Your task to perform on an android device: Clear the cart on newegg.com. Image 0: 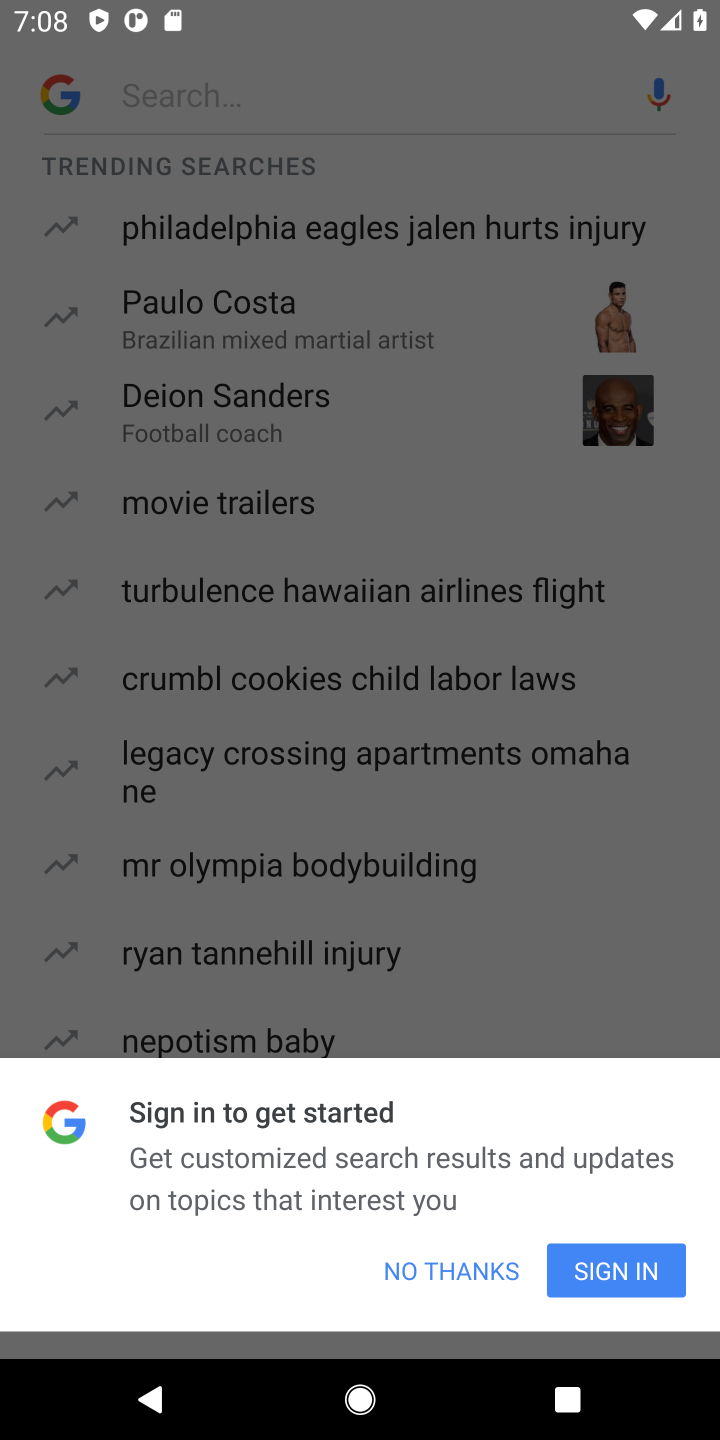
Step 0: press home button
Your task to perform on an android device: Clear the cart on newegg.com. Image 1: 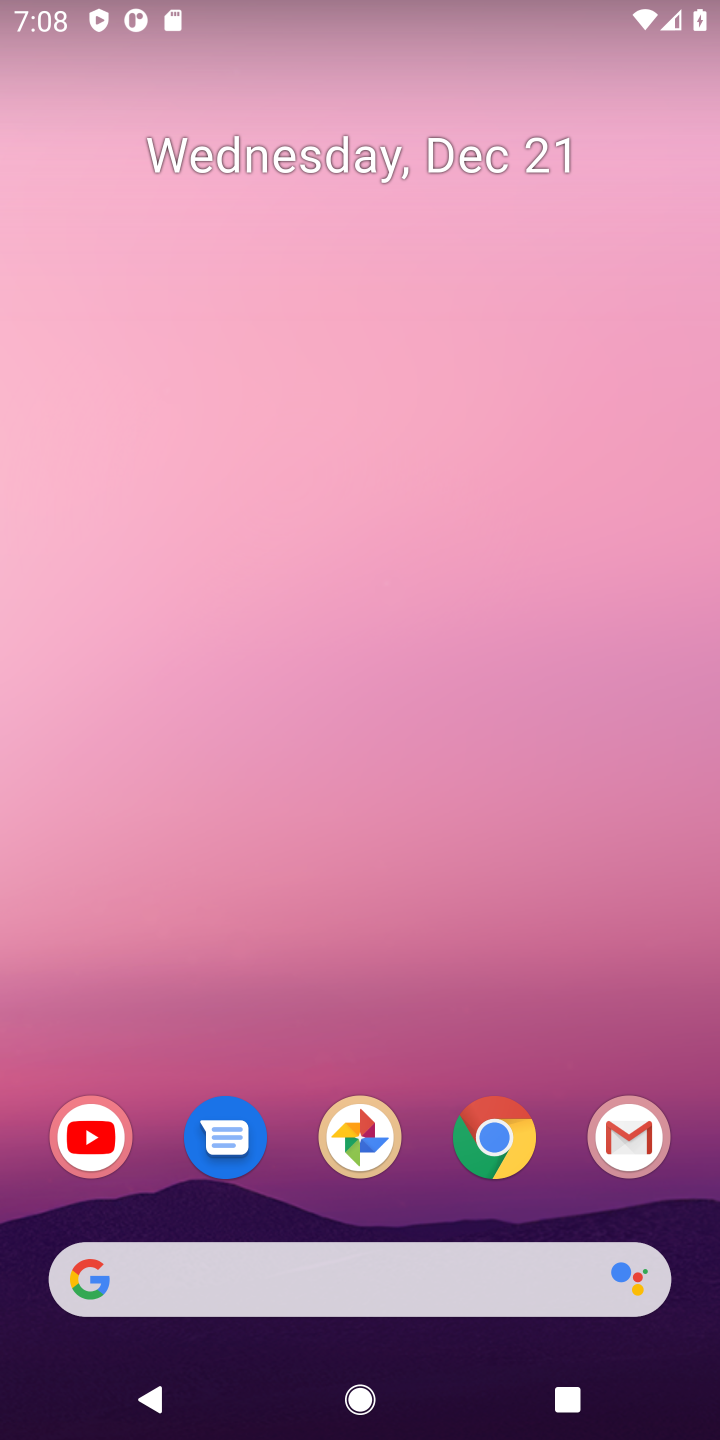
Step 1: click (498, 1151)
Your task to perform on an android device: Clear the cart on newegg.com. Image 2: 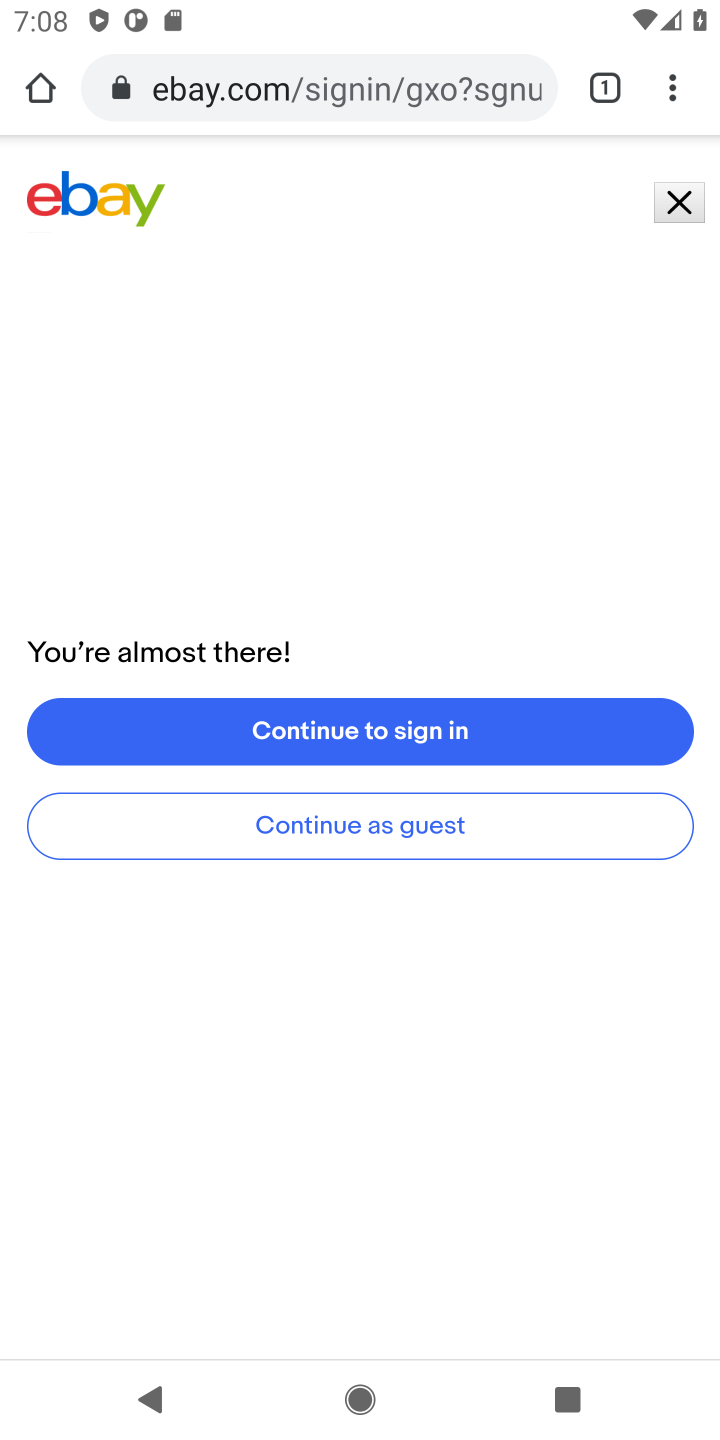
Step 2: click (272, 84)
Your task to perform on an android device: Clear the cart on newegg.com. Image 3: 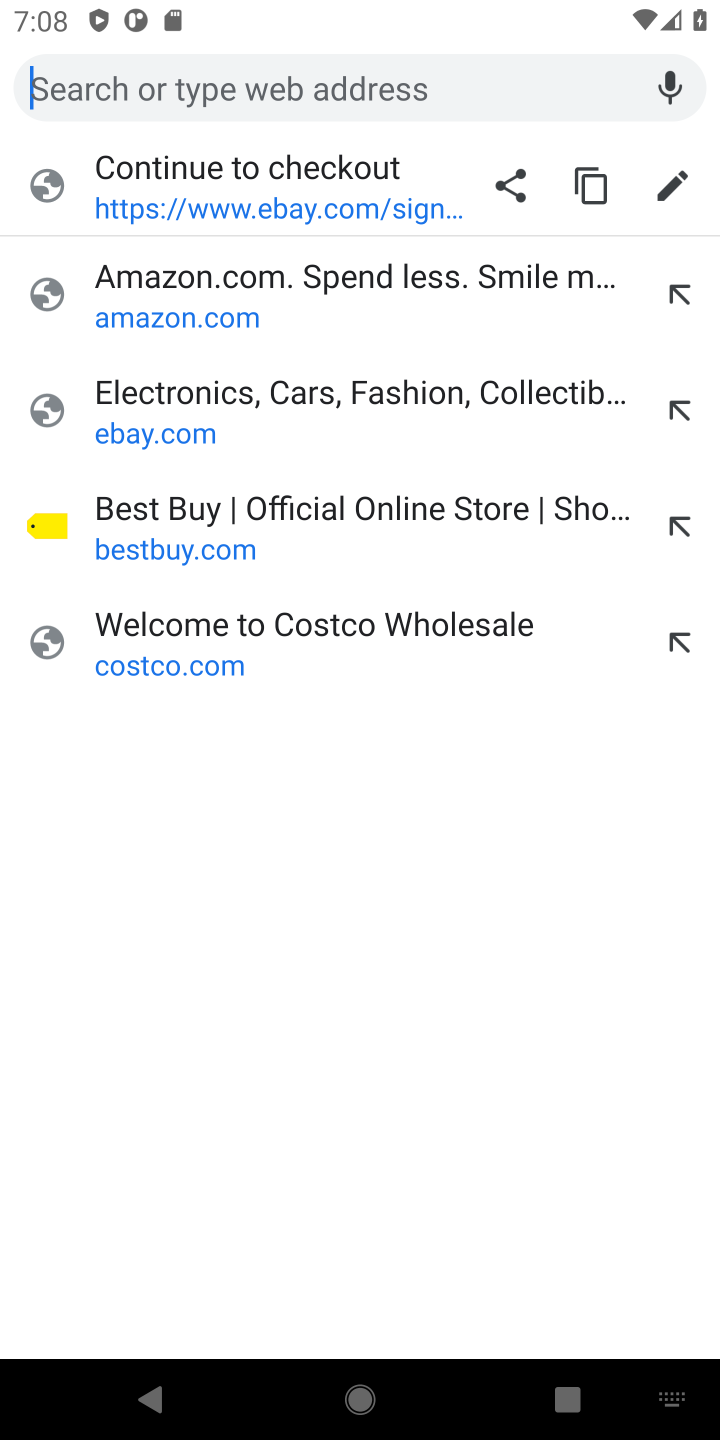
Step 3: type "newegg.com"
Your task to perform on an android device: Clear the cart on newegg.com. Image 4: 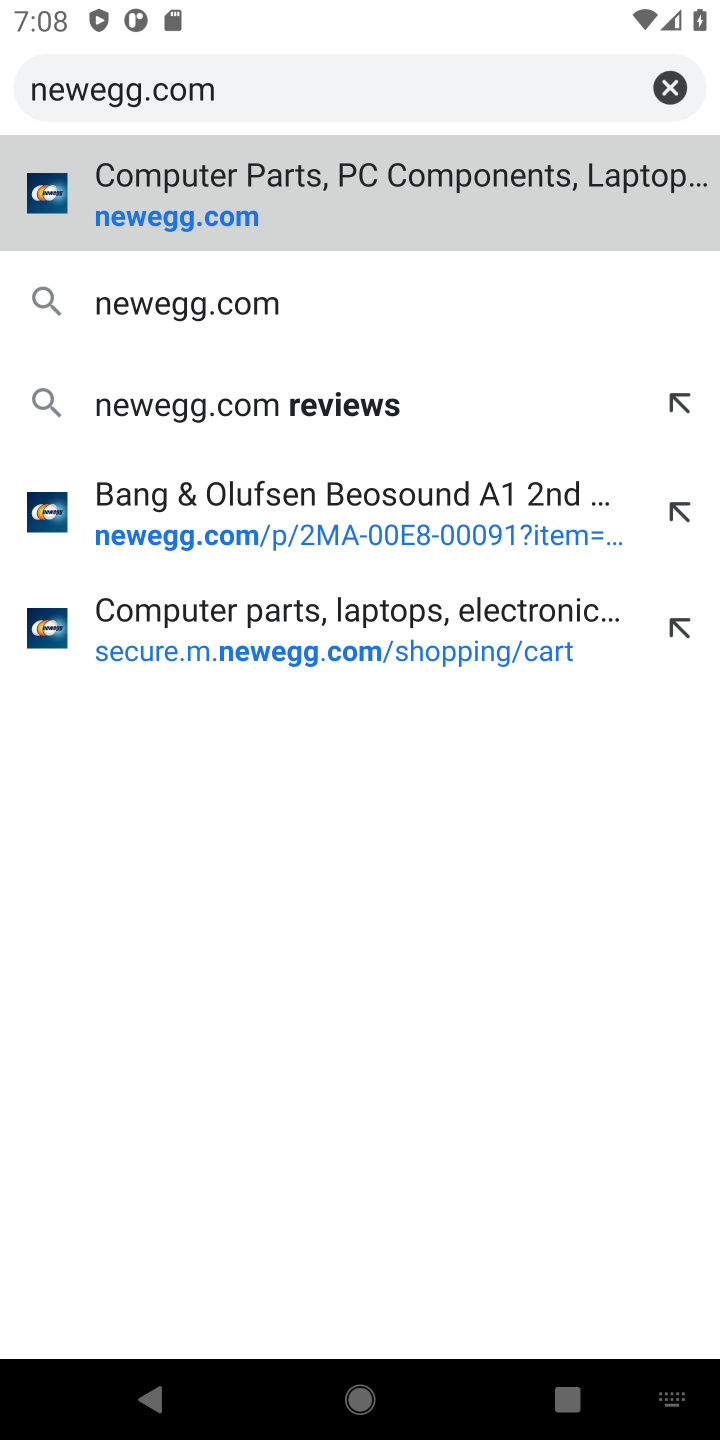
Step 4: click (189, 223)
Your task to perform on an android device: Clear the cart on newegg.com. Image 5: 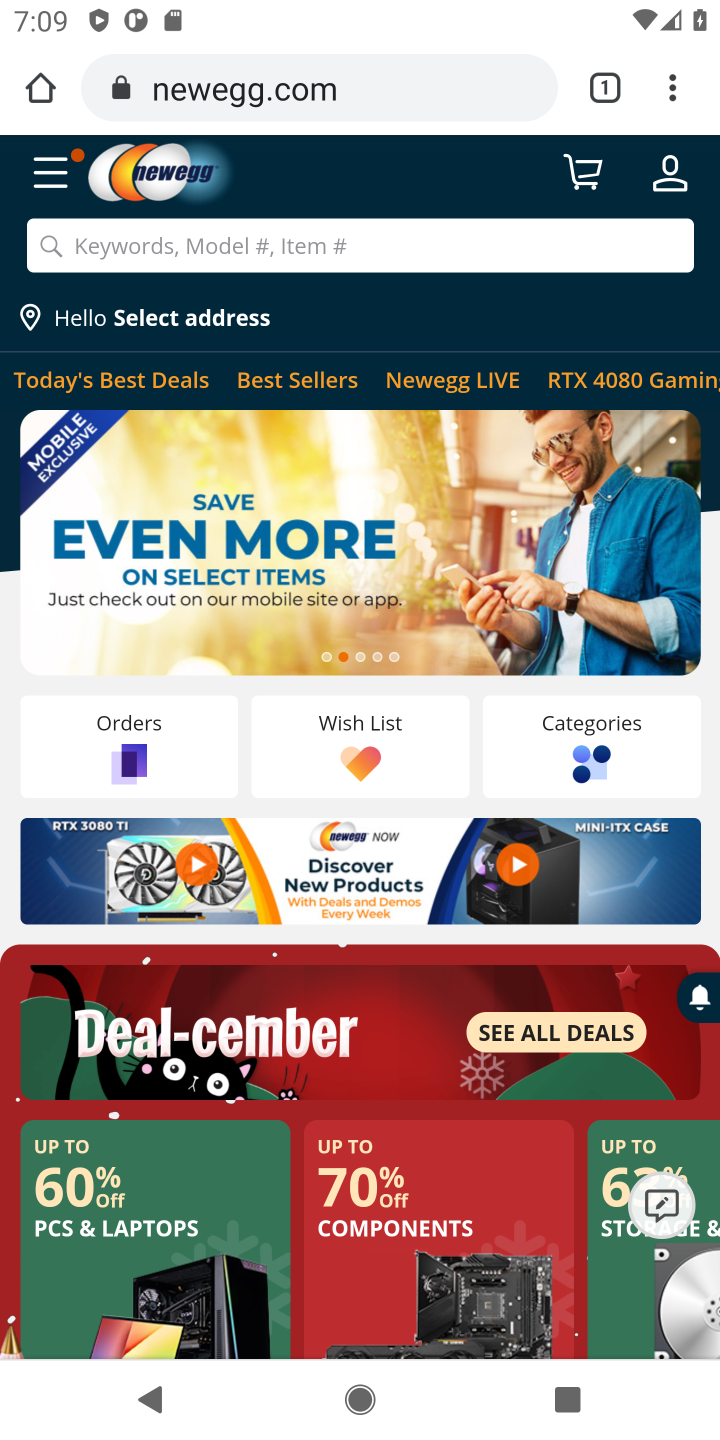
Step 5: click (572, 184)
Your task to perform on an android device: Clear the cart on newegg.com. Image 6: 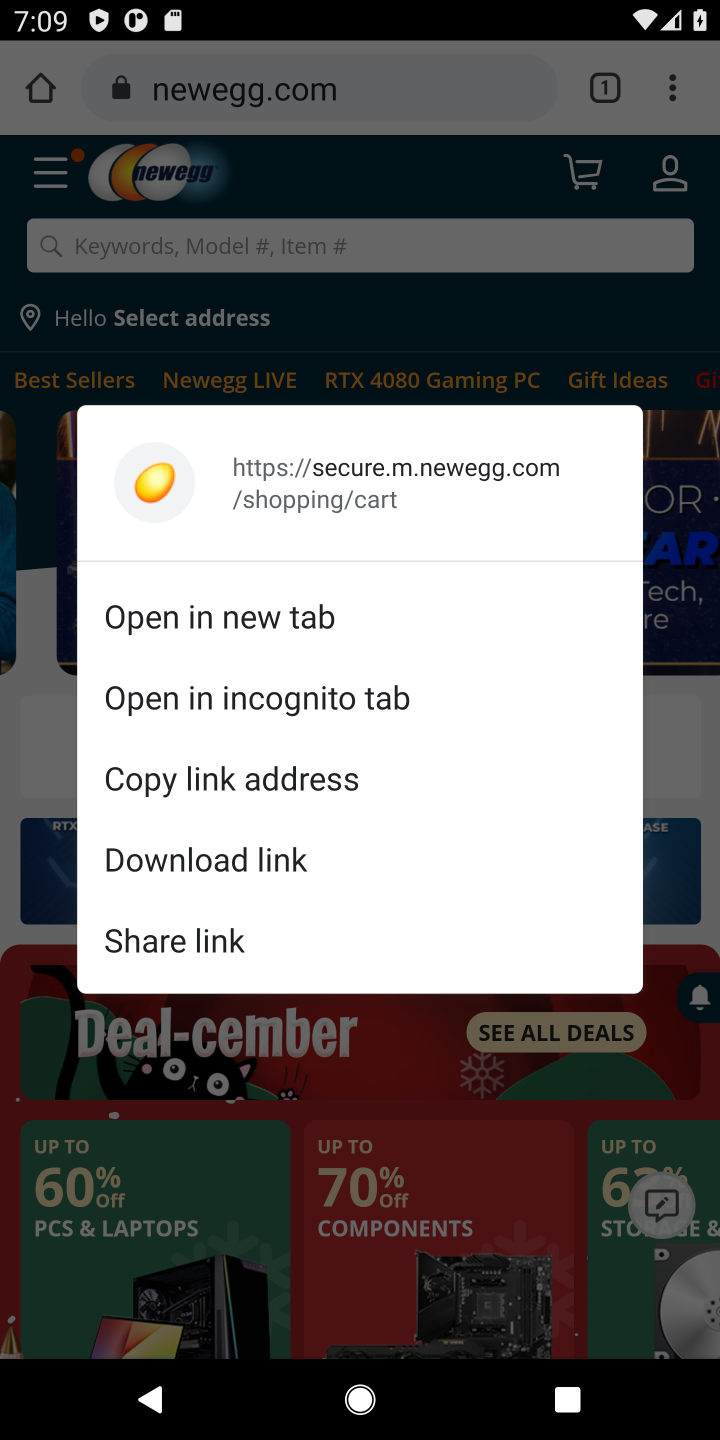
Step 6: click (568, 191)
Your task to perform on an android device: Clear the cart on newegg.com. Image 7: 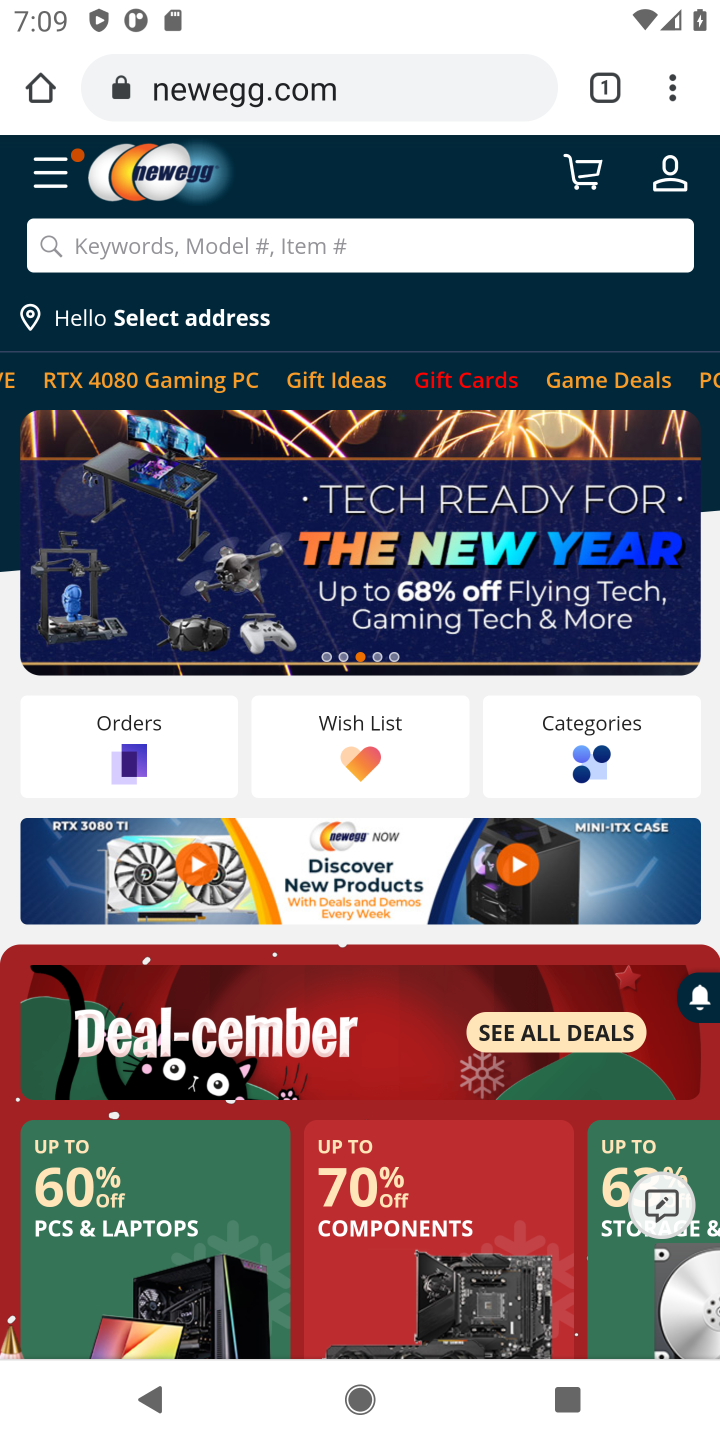
Step 7: click (586, 178)
Your task to perform on an android device: Clear the cart on newegg.com. Image 8: 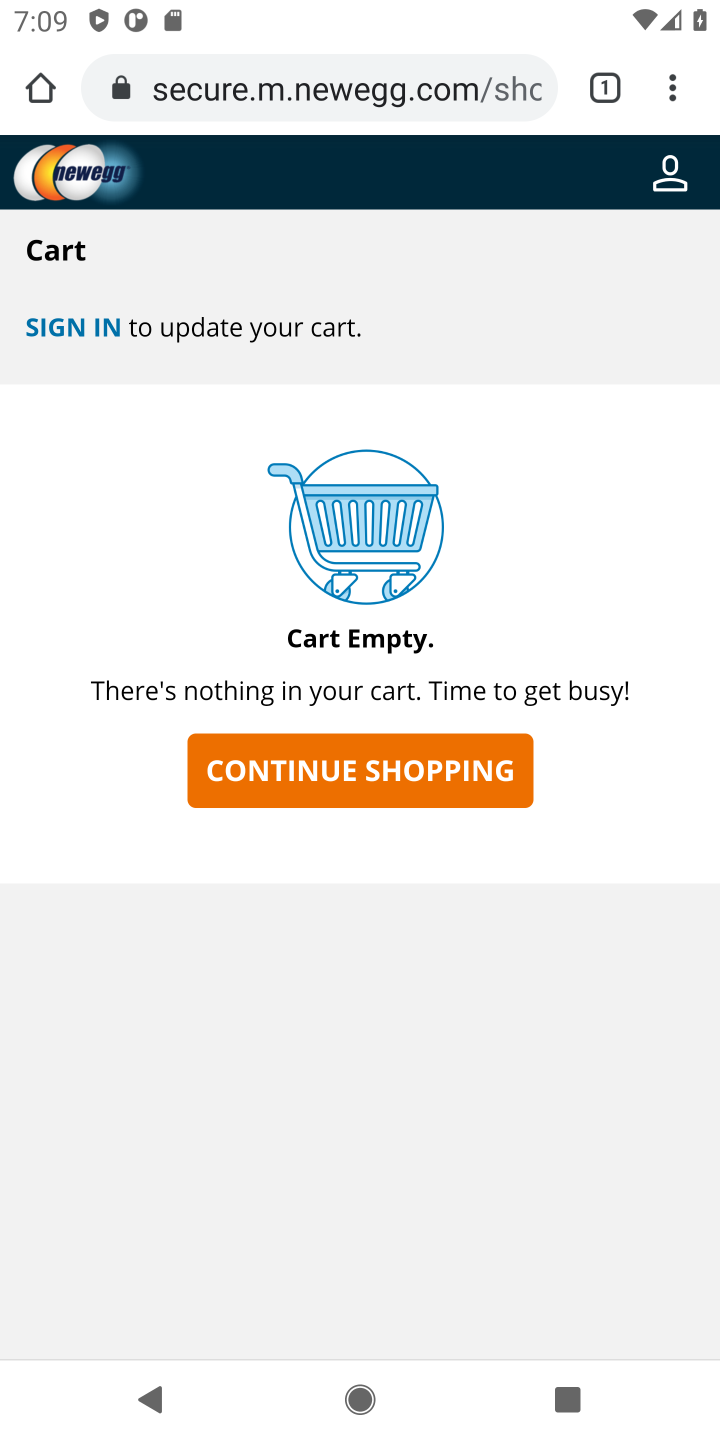
Step 8: task complete